Your task to perform on an android device: Open calendar and show me the first week of next month Image 0: 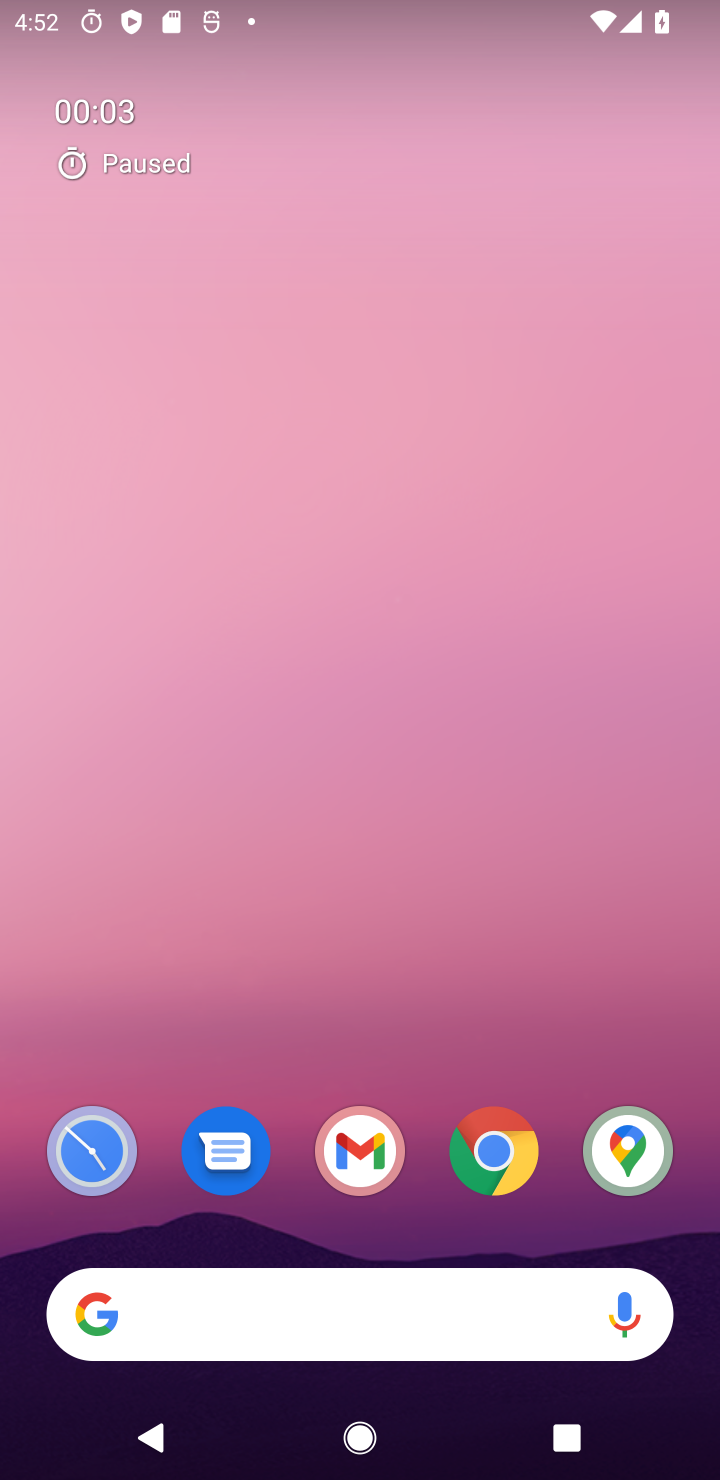
Step 0: drag from (503, 1330) to (268, 444)
Your task to perform on an android device: Open calendar and show me the first week of next month Image 1: 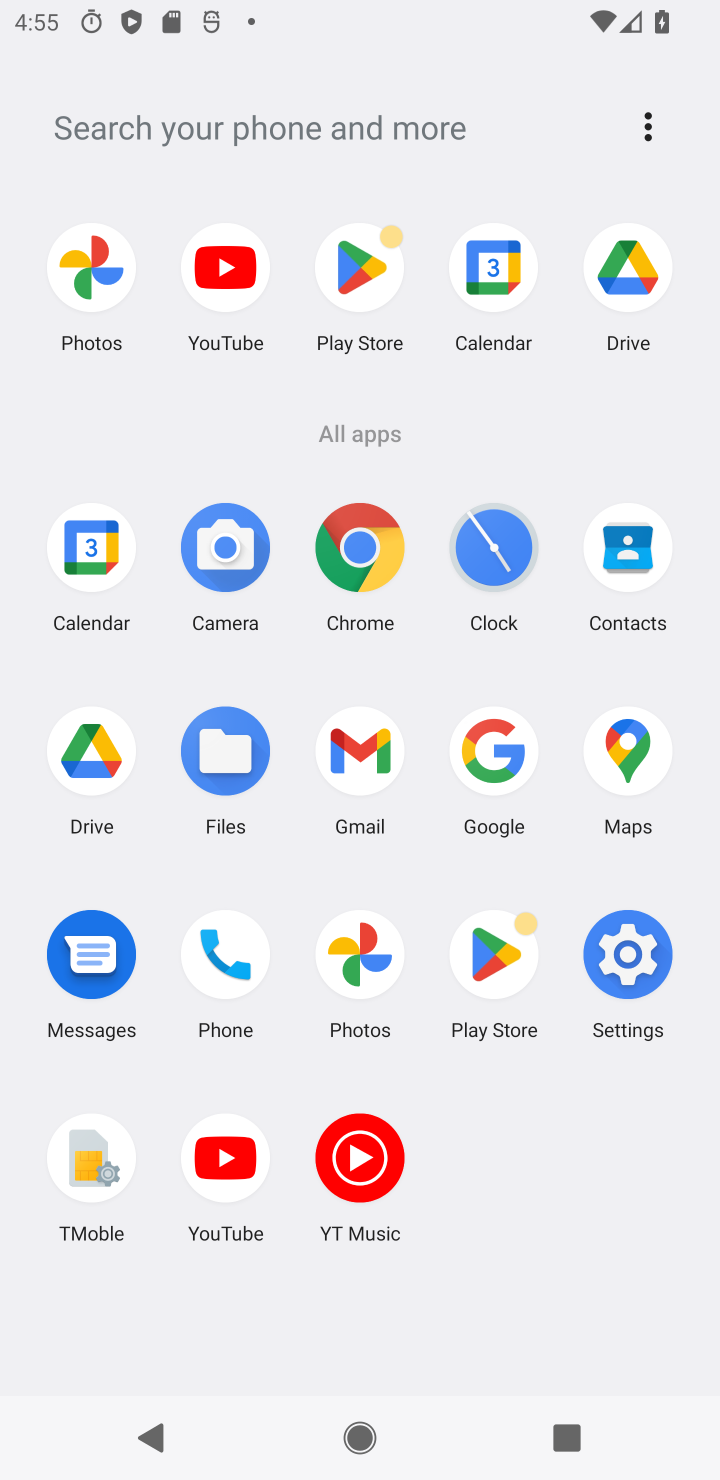
Step 1: click (632, 570)
Your task to perform on an android device: Open calendar and show me the first week of next month Image 2: 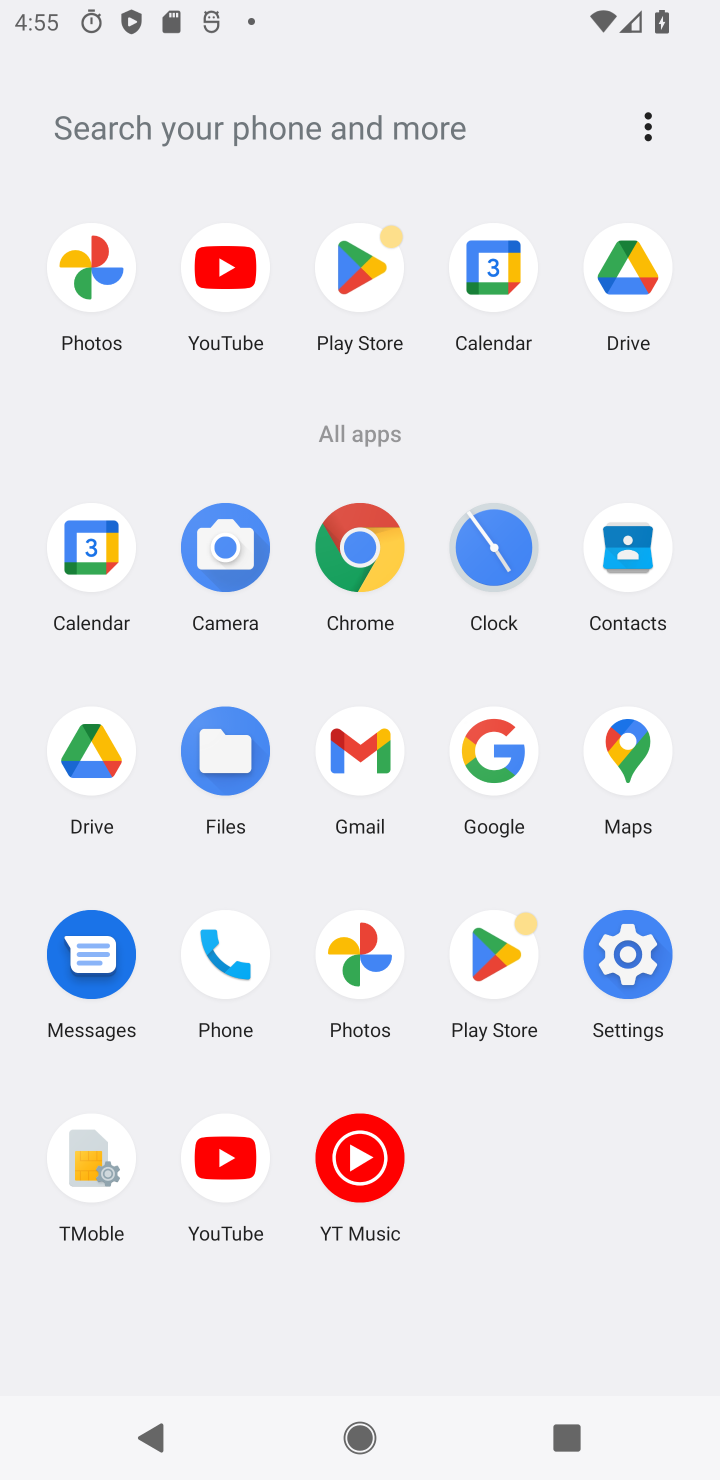
Step 2: click (632, 563)
Your task to perform on an android device: Open calendar and show me the first week of next month Image 3: 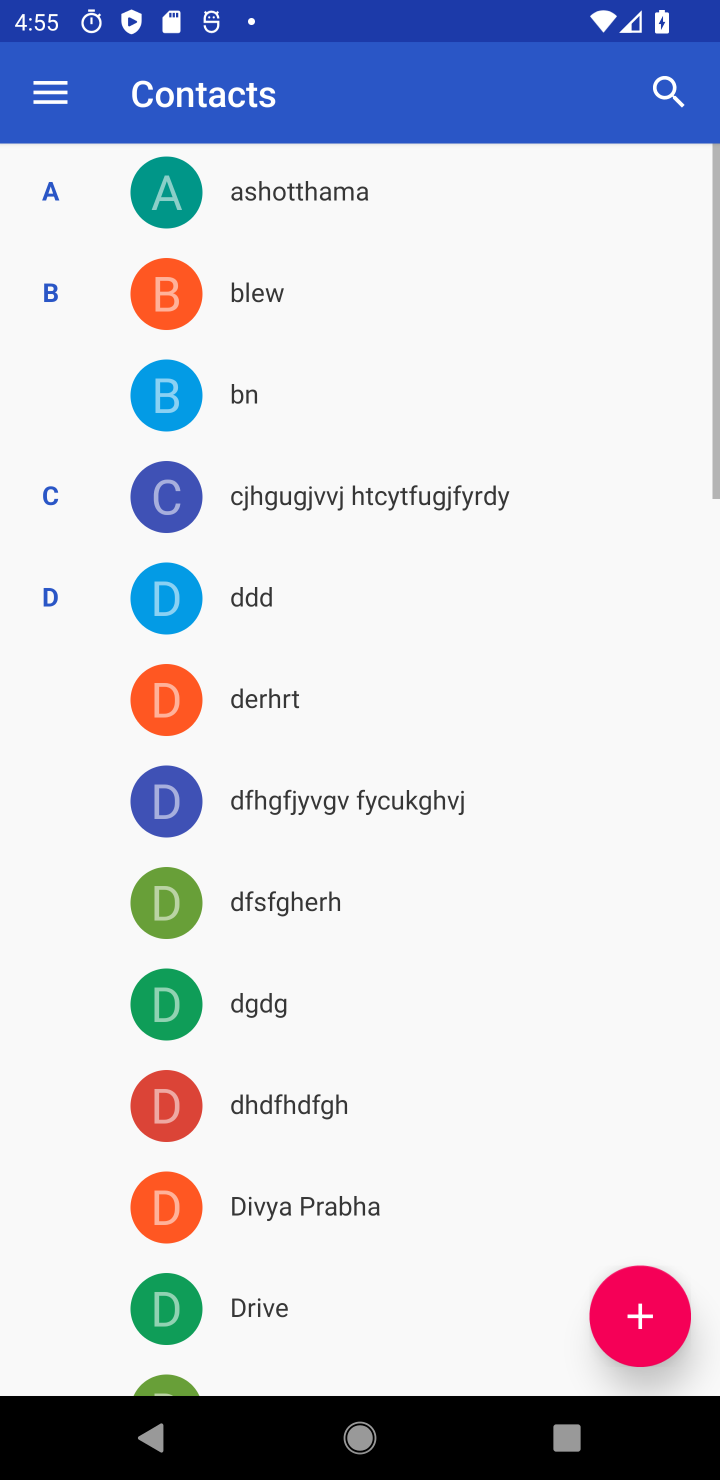
Step 3: press back button
Your task to perform on an android device: Open calendar and show me the first week of next month Image 4: 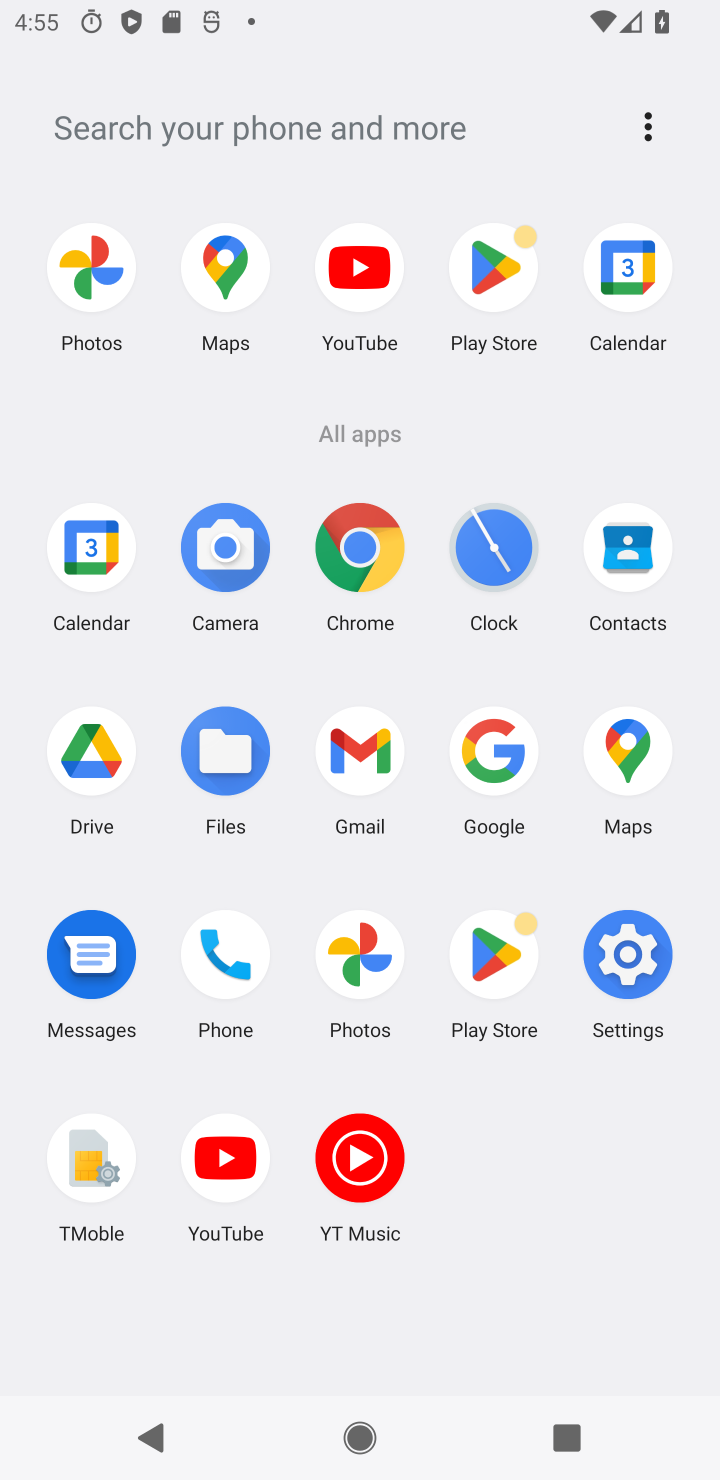
Step 4: click (608, 262)
Your task to perform on an android device: Open calendar and show me the first week of next month Image 5: 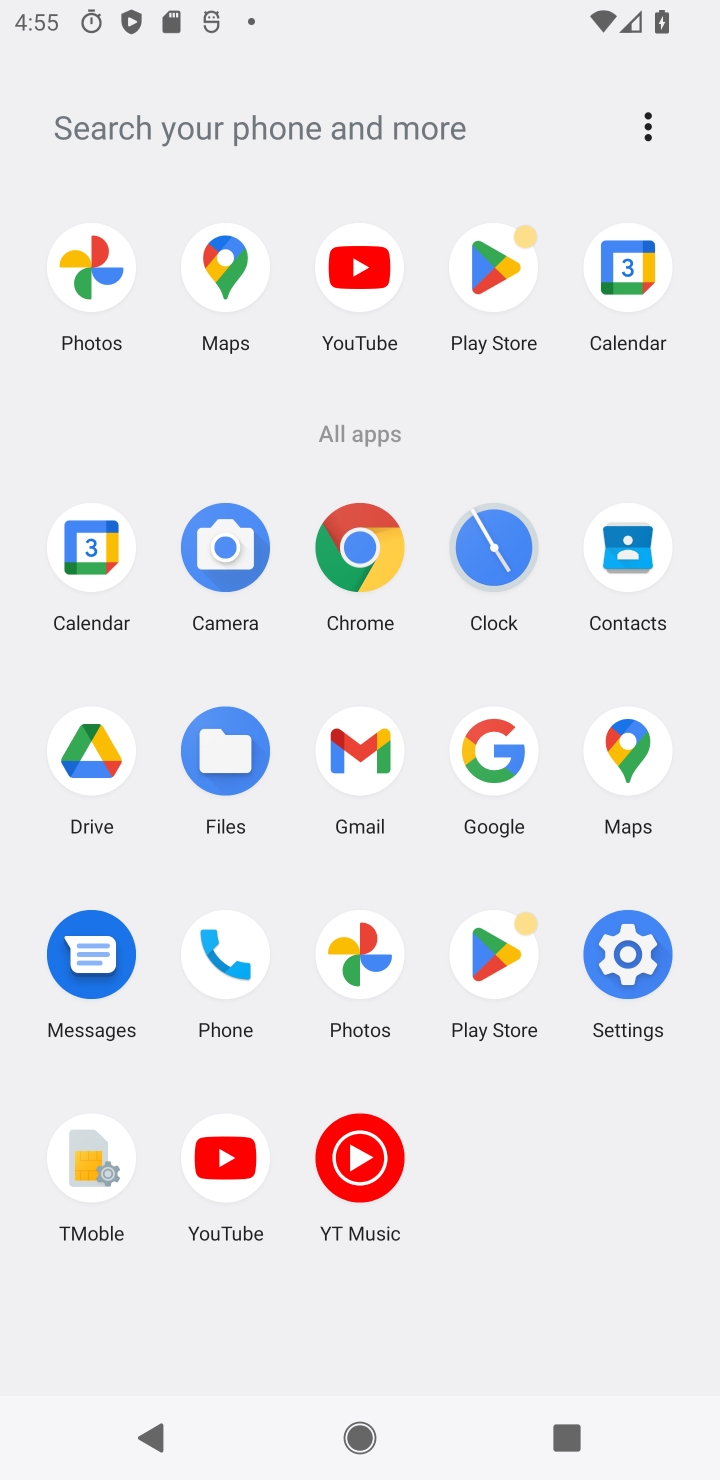
Step 5: click (608, 262)
Your task to perform on an android device: Open calendar and show me the first week of next month Image 6: 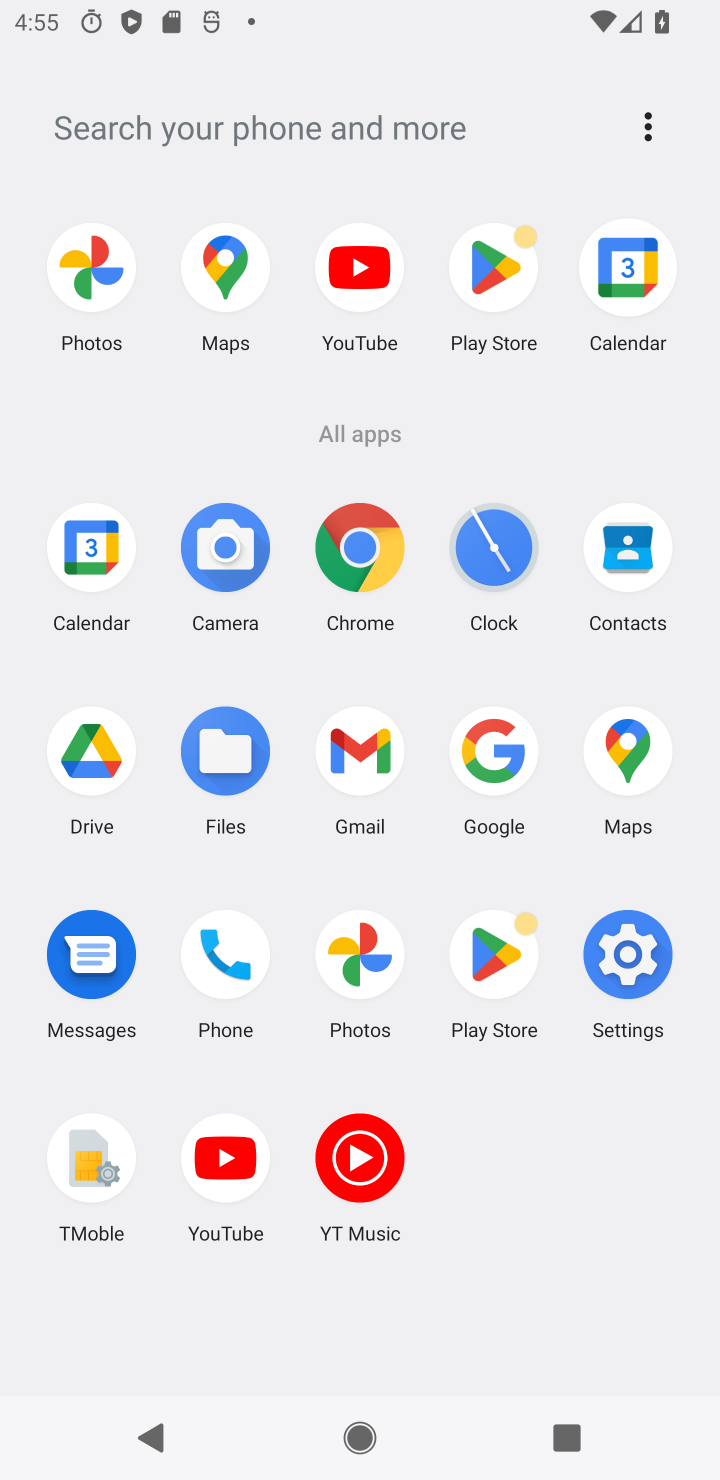
Step 6: click (628, 283)
Your task to perform on an android device: Open calendar and show me the first week of next month Image 7: 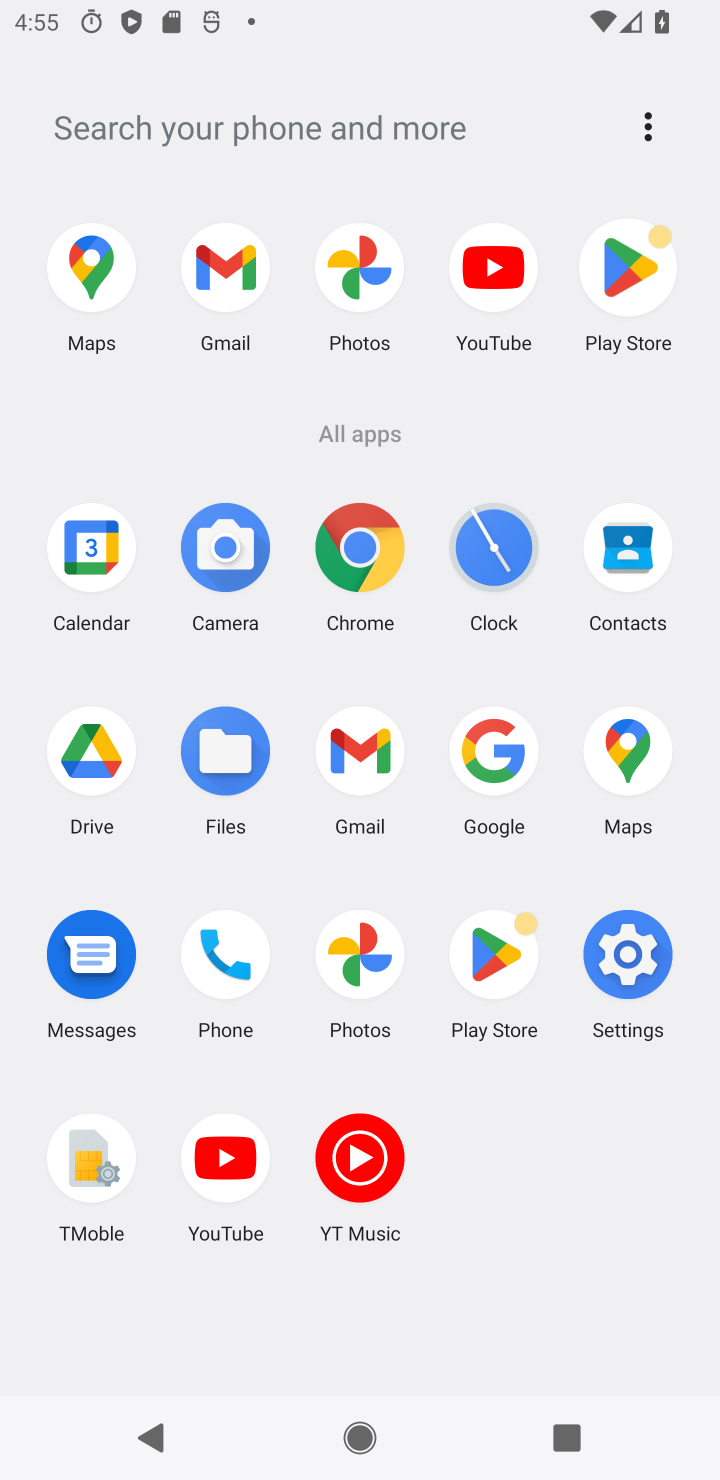
Step 7: click (630, 281)
Your task to perform on an android device: Open calendar and show me the first week of next month Image 8: 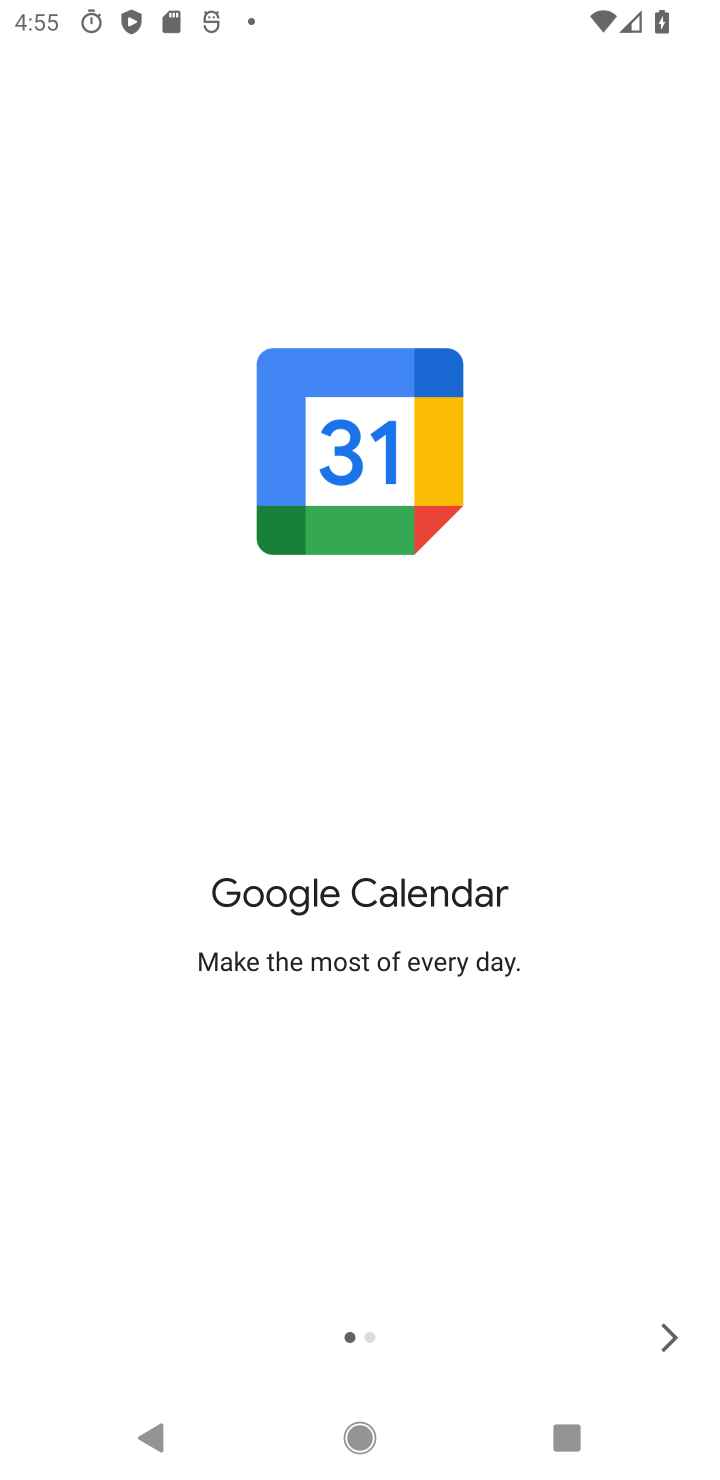
Step 8: click (660, 1335)
Your task to perform on an android device: Open calendar and show me the first week of next month Image 9: 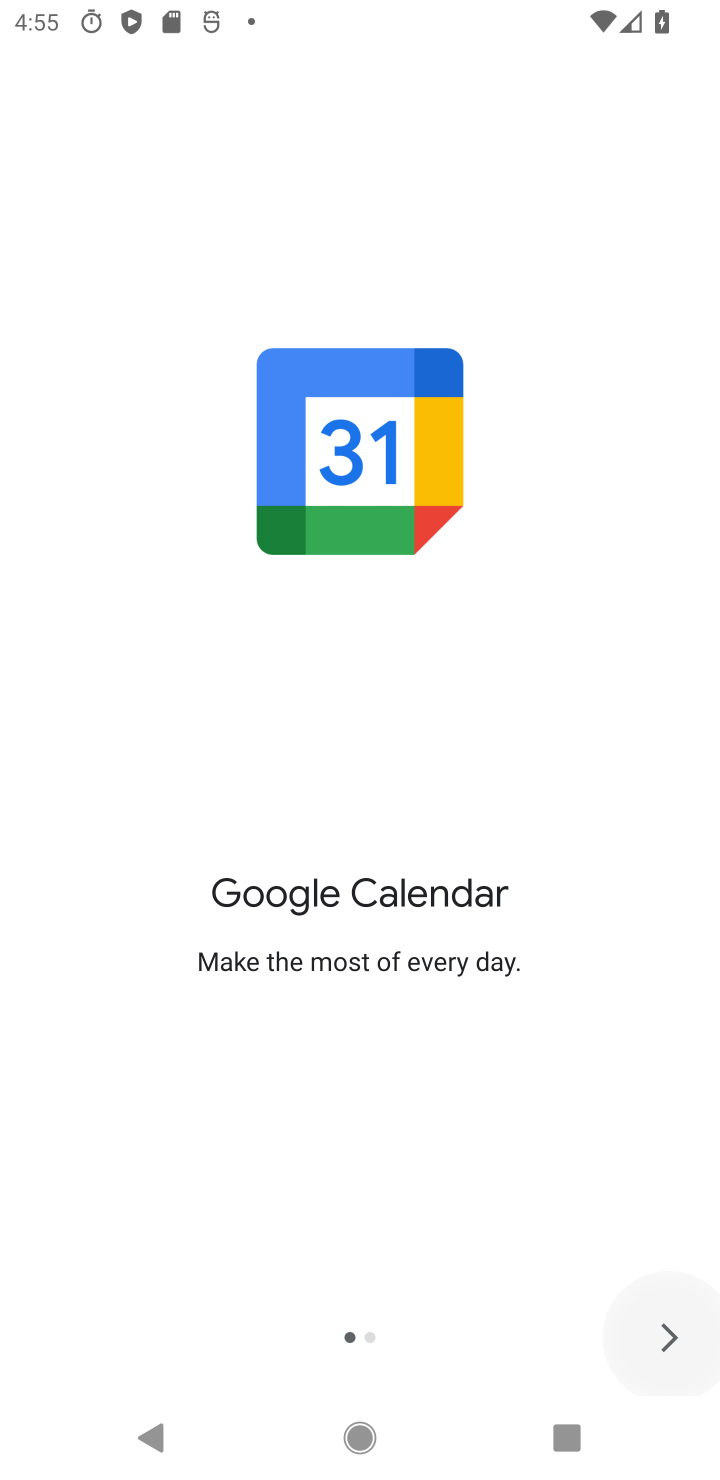
Step 9: click (666, 1325)
Your task to perform on an android device: Open calendar and show me the first week of next month Image 10: 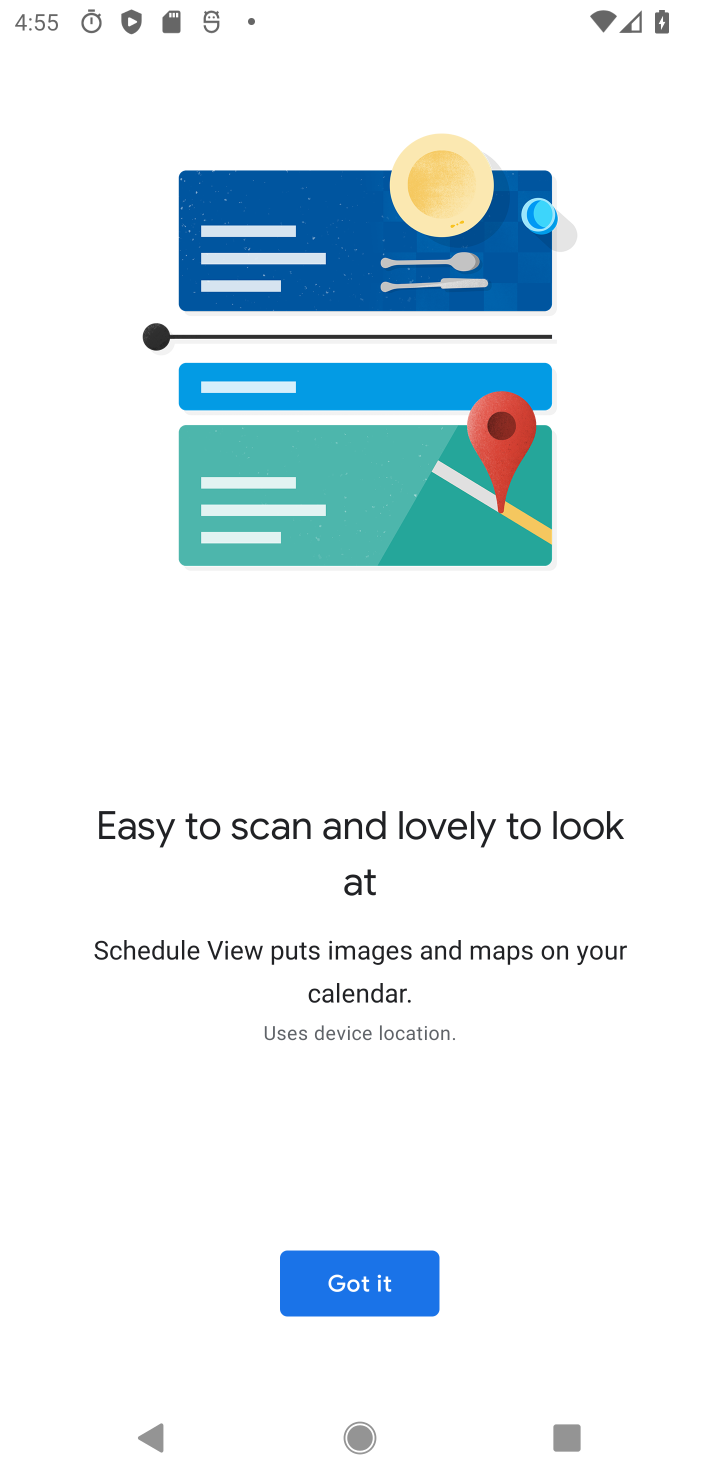
Step 10: click (442, 1293)
Your task to perform on an android device: Open calendar and show me the first week of next month Image 11: 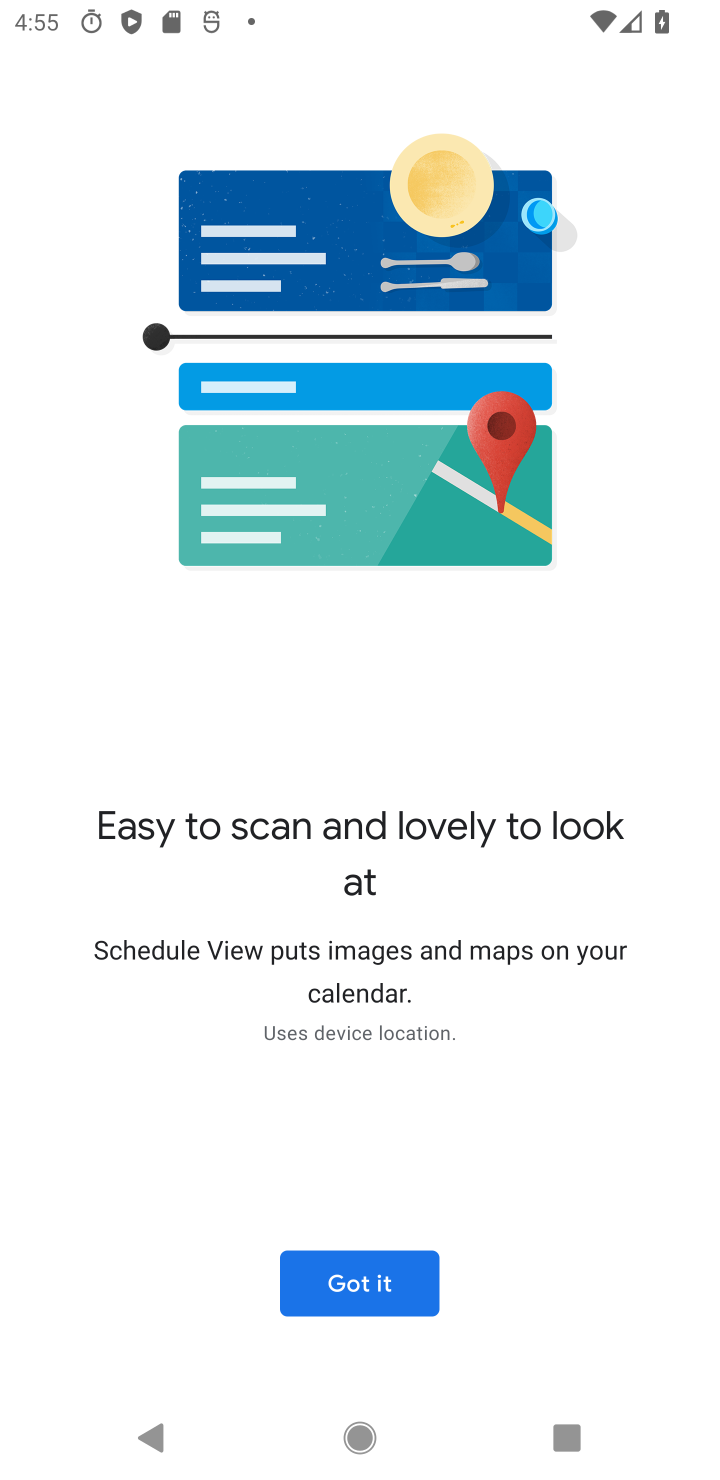
Step 11: click (379, 1289)
Your task to perform on an android device: Open calendar and show me the first week of next month Image 12: 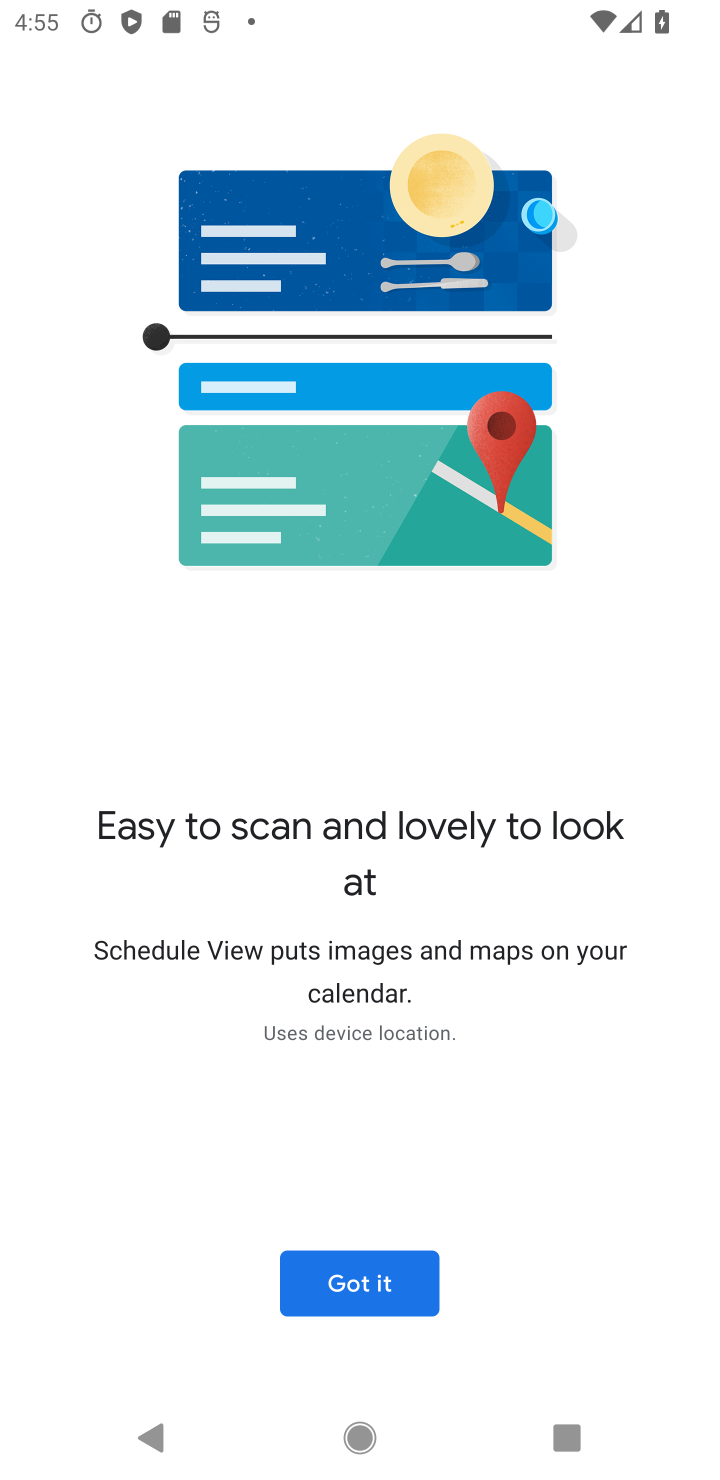
Step 12: click (375, 1287)
Your task to perform on an android device: Open calendar and show me the first week of next month Image 13: 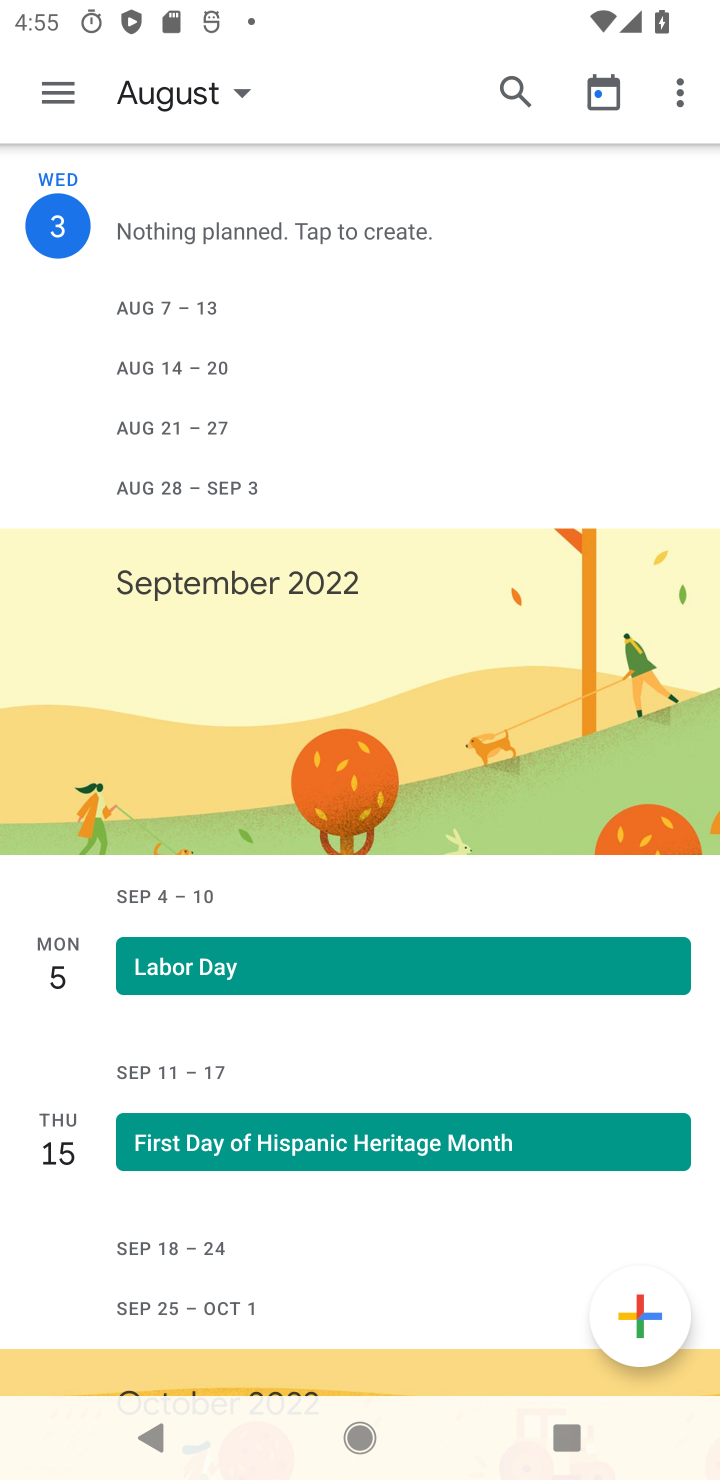
Step 13: click (238, 96)
Your task to perform on an android device: Open calendar and show me the first week of next month Image 14: 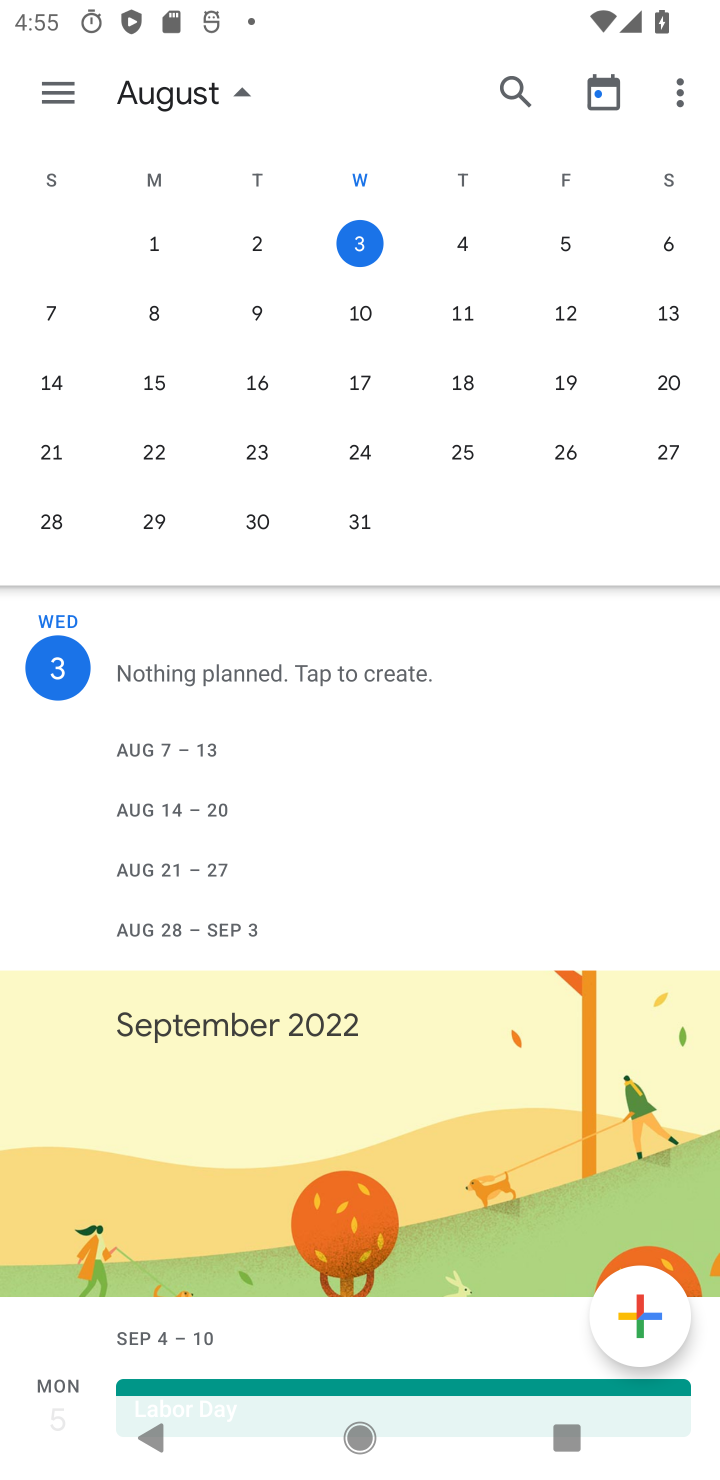
Step 14: drag from (187, 442) to (79, 262)
Your task to perform on an android device: Open calendar and show me the first week of next month Image 15: 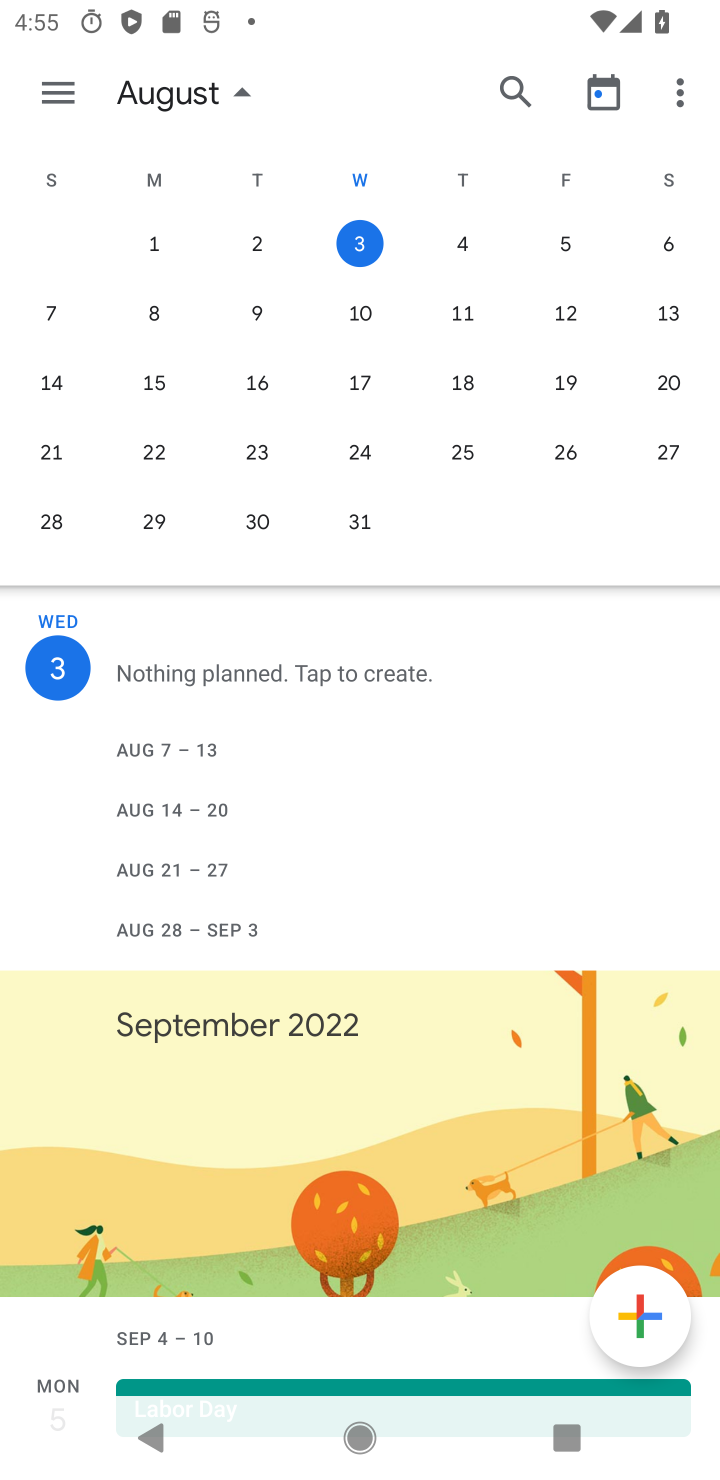
Step 15: drag from (648, 300) to (33, 339)
Your task to perform on an android device: Open calendar and show me the first week of next month Image 16: 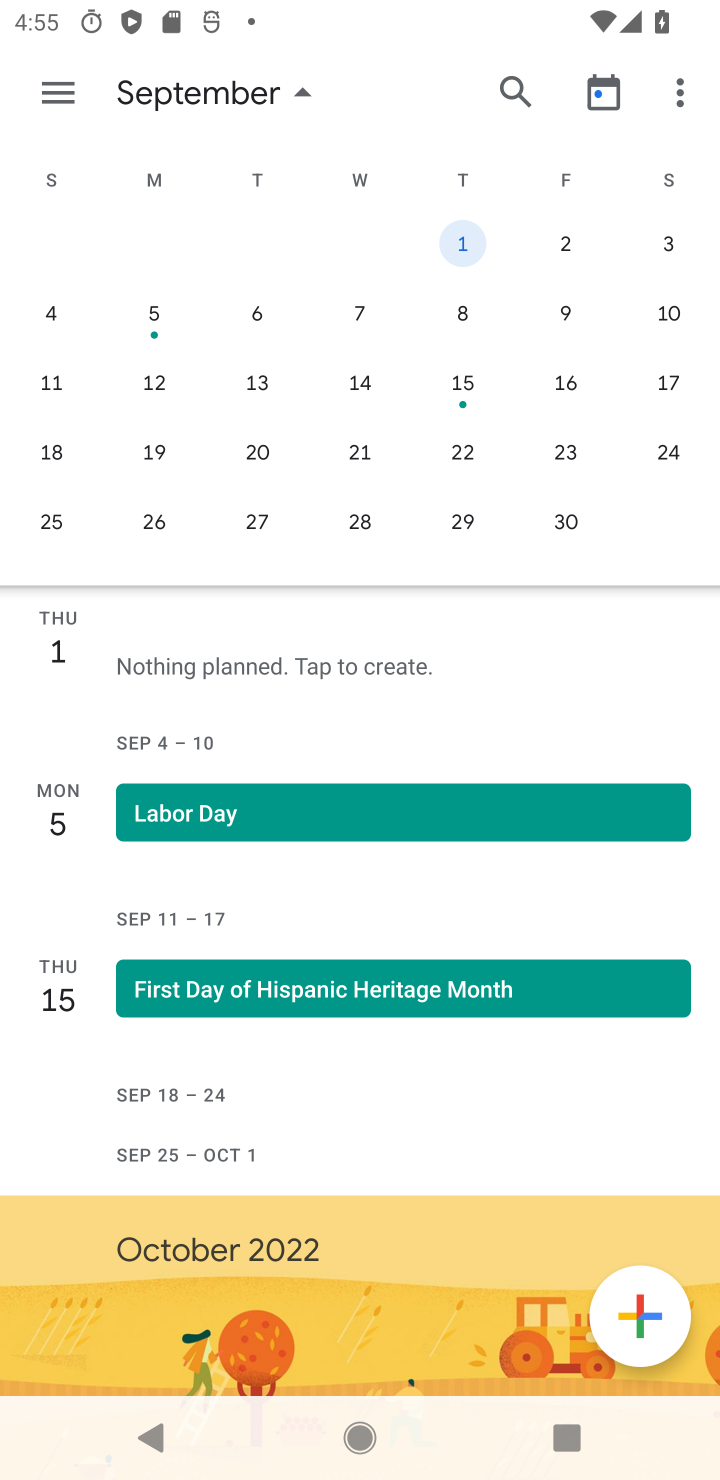
Step 16: click (557, 234)
Your task to perform on an android device: Open calendar and show me the first week of next month Image 17: 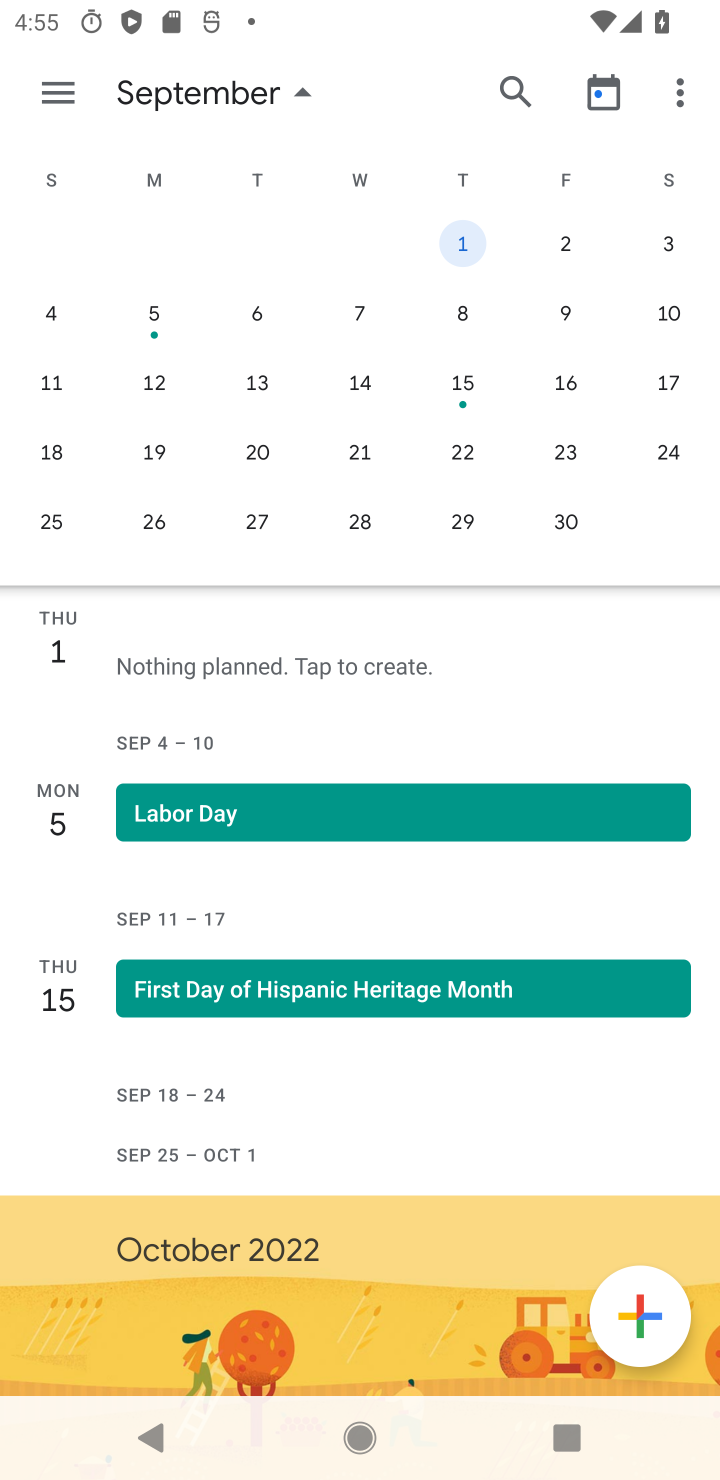
Step 17: click (554, 237)
Your task to perform on an android device: Open calendar and show me the first week of next month Image 18: 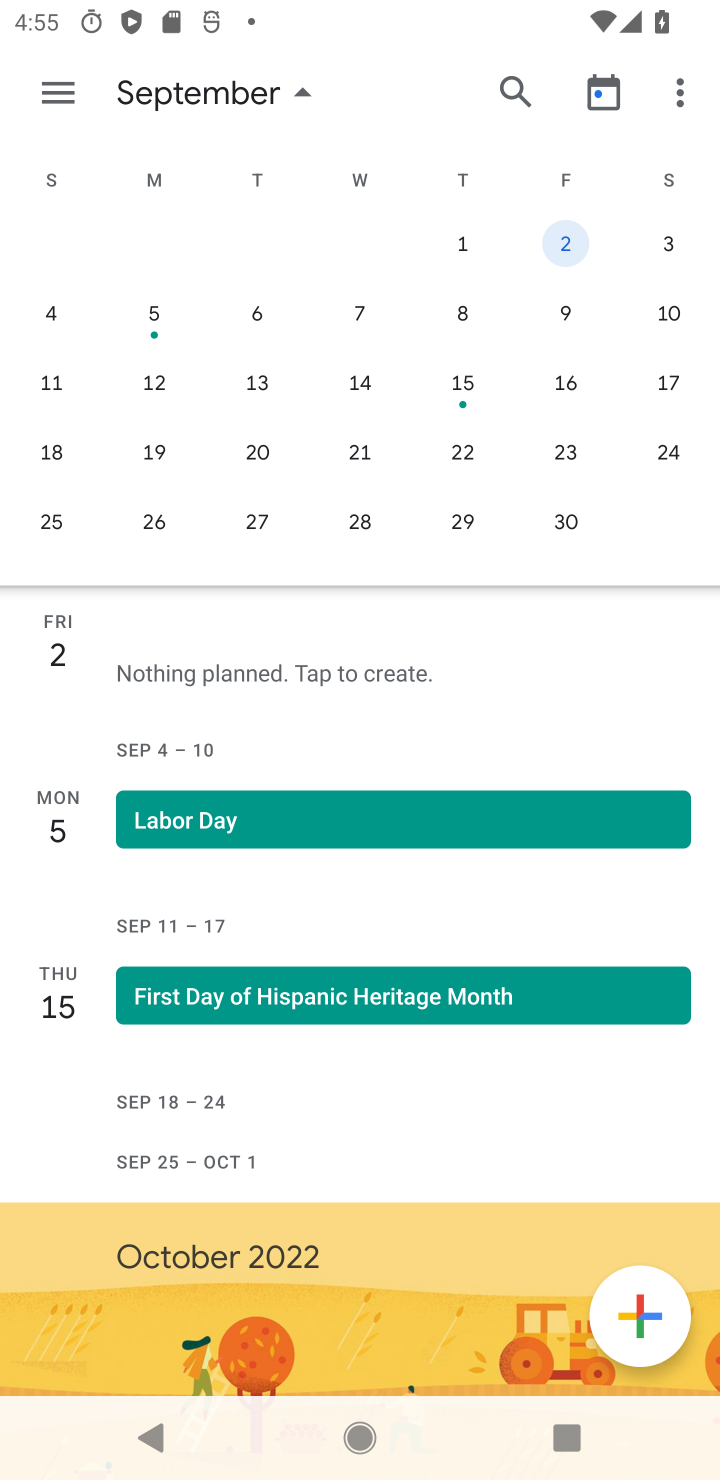
Step 18: task complete